Your task to perform on an android device: Search for the best selling phone on AliExpress Image 0: 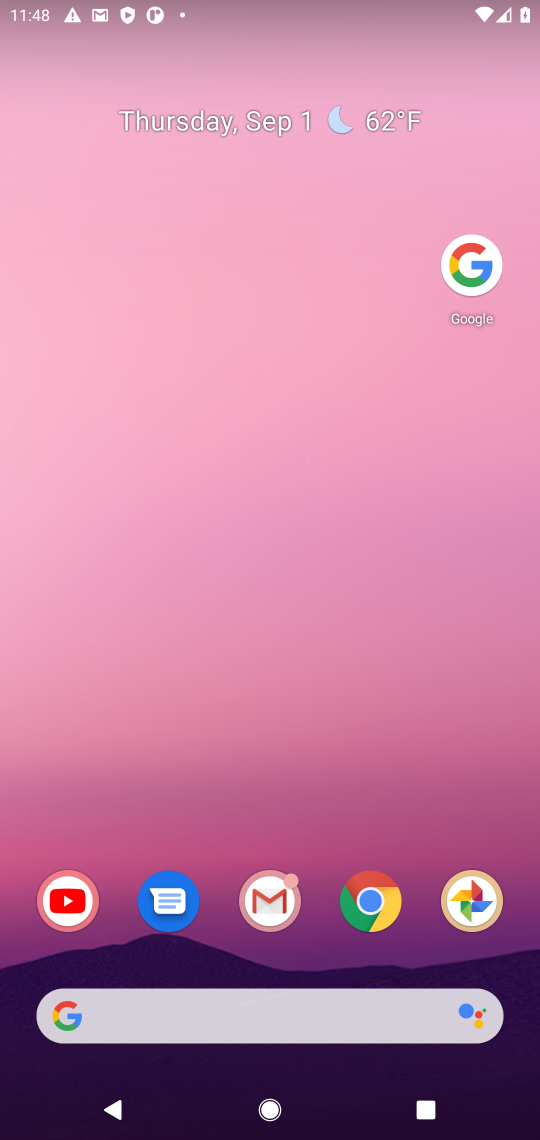
Step 0: drag from (245, 753) to (328, 216)
Your task to perform on an android device: Search for the best selling phone on AliExpress Image 1: 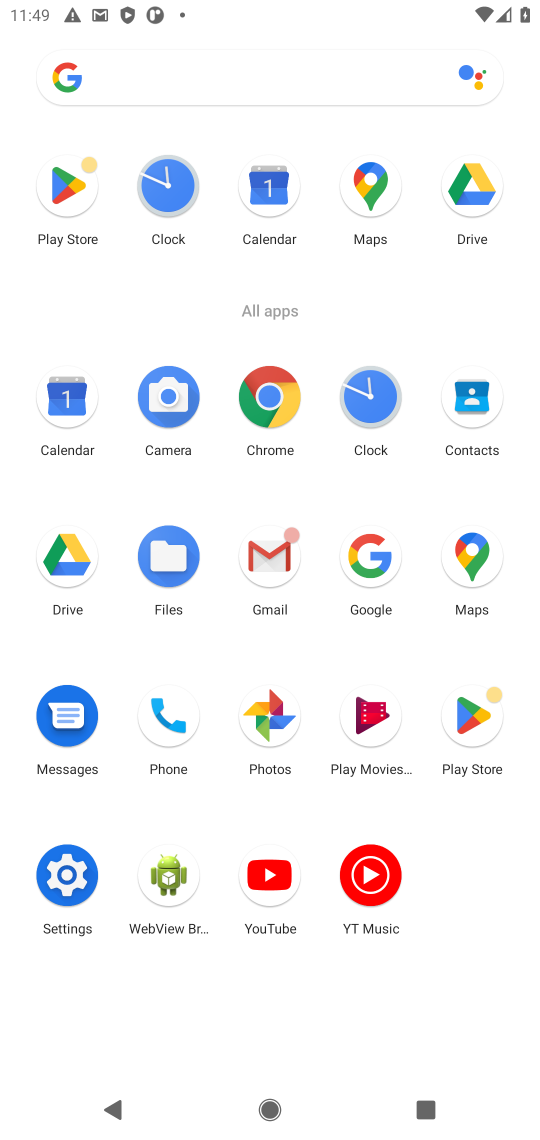
Step 1: click (379, 544)
Your task to perform on an android device: Search for the best selling phone on AliExpress Image 2: 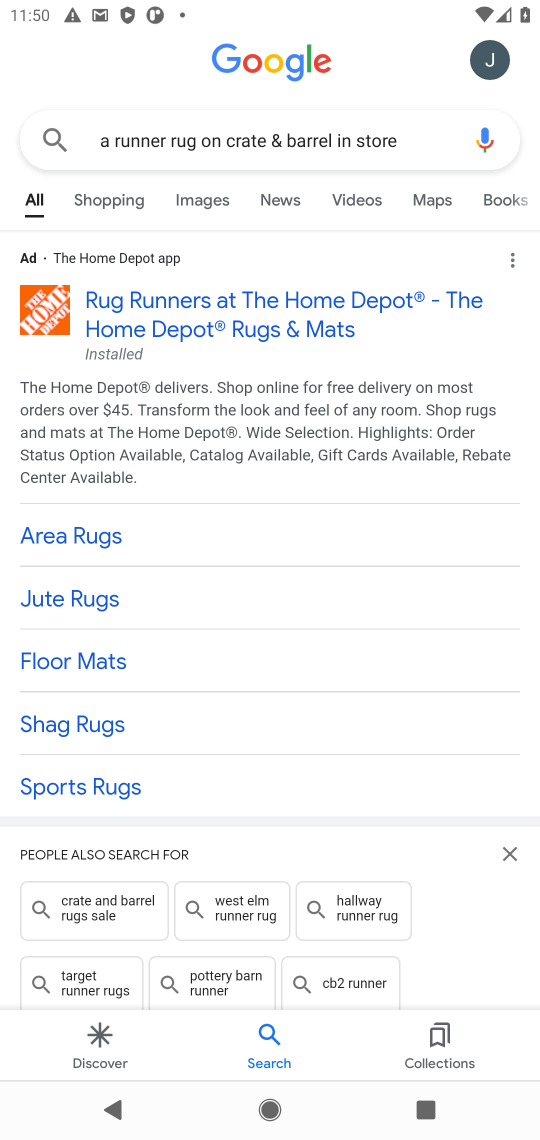
Step 2: click (193, 304)
Your task to perform on an android device: Search for the best selling phone on AliExpress Image 3: 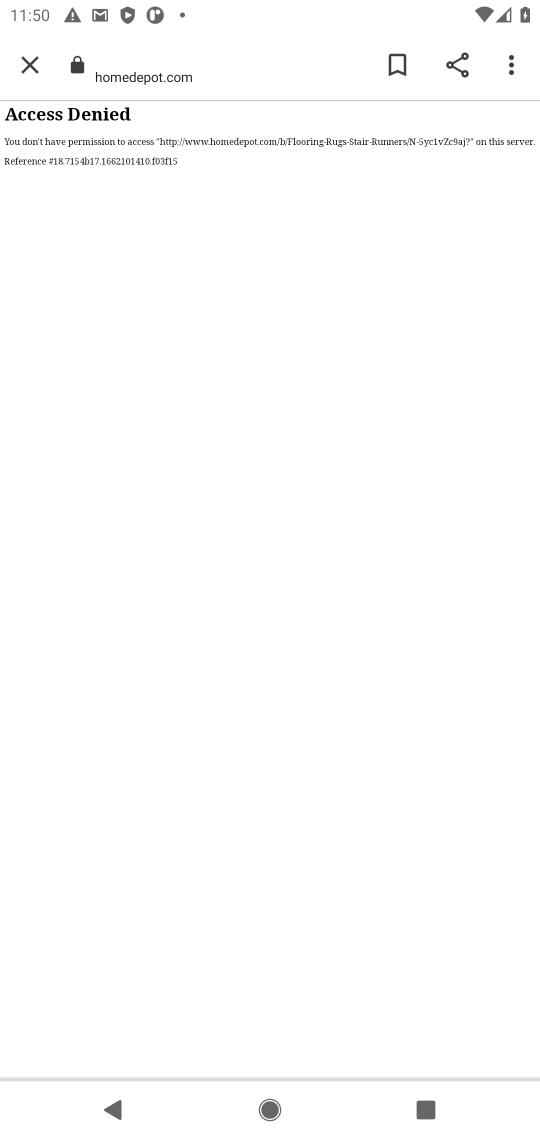
Step 3: click (24, 67)
Your task to perform on an android device: Search for the best selling phone on AliExpress Image 4: 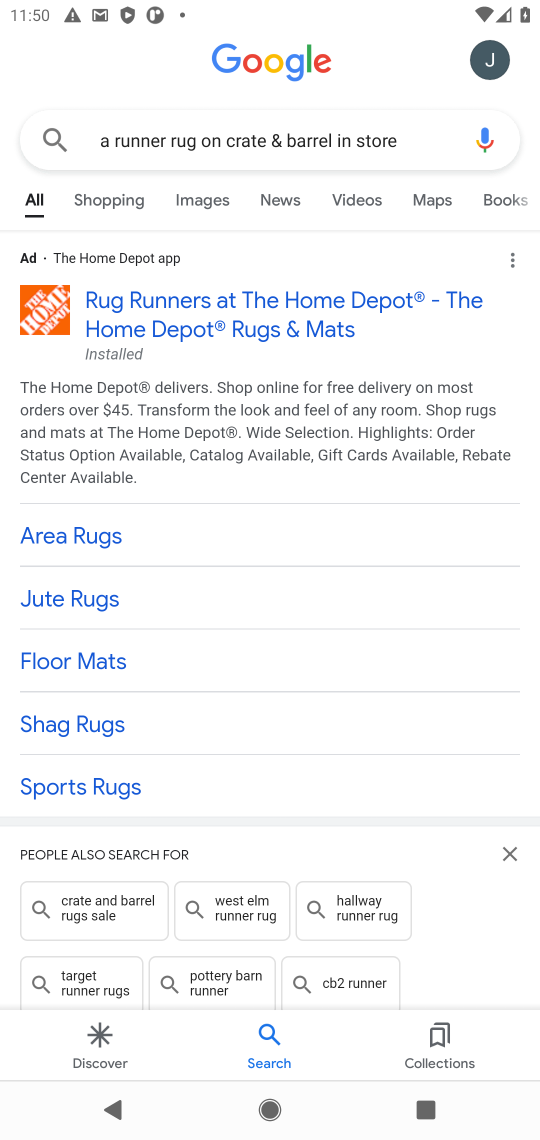
Step 4: click (364, 137)
Your task to perform on an android device: Search for the best selling phone on AliExpress Image 5: 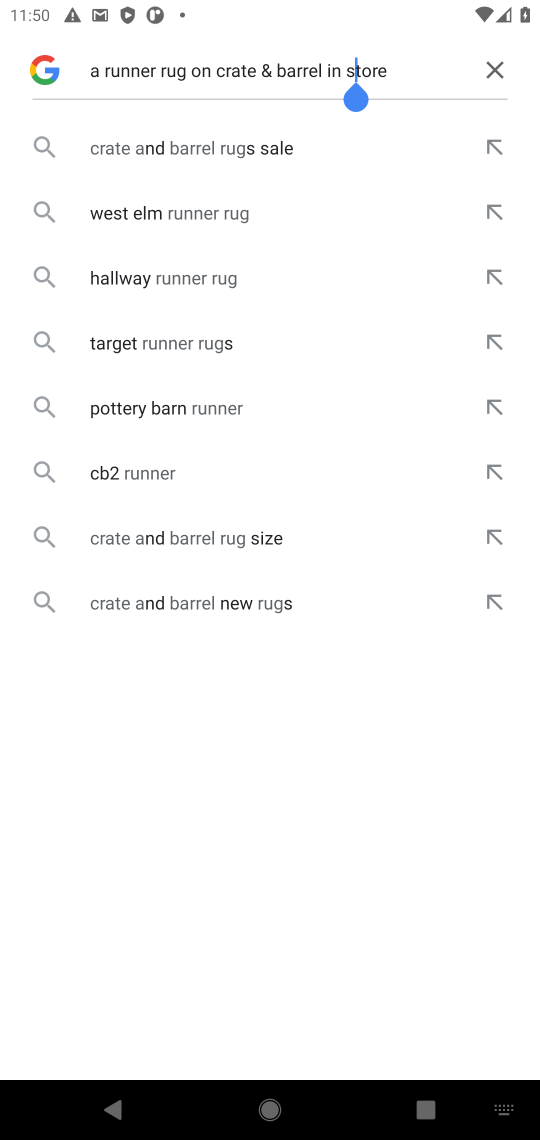
Step 5: click (496, 62)
Your task to perform on an android device: Search for the best selling phone on AliExpress Image 6: 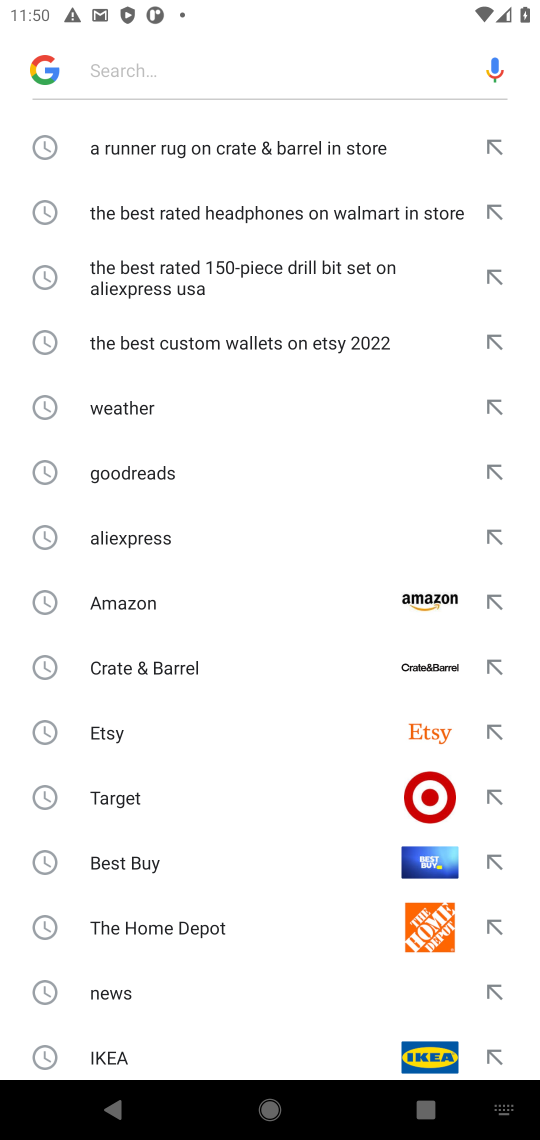
Step 6: click (225, 85)
Your task to perform on an android device: Search for the best selling phone on AliExpress Image 7: 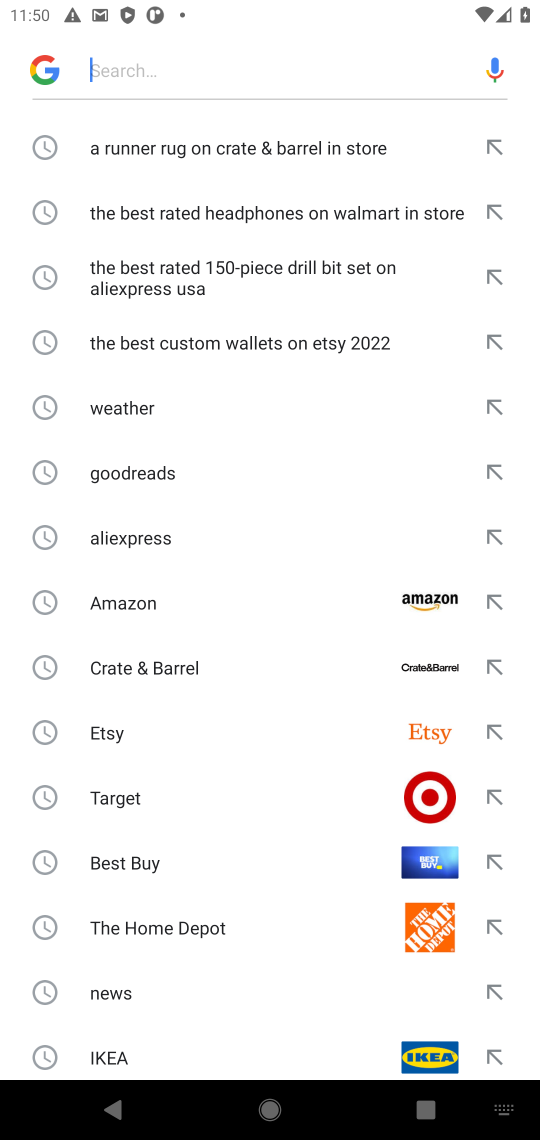
Step 7: click (225, 82)
Your task to perform on an android device: Search for the best selling phone on AliExpress Image 8: 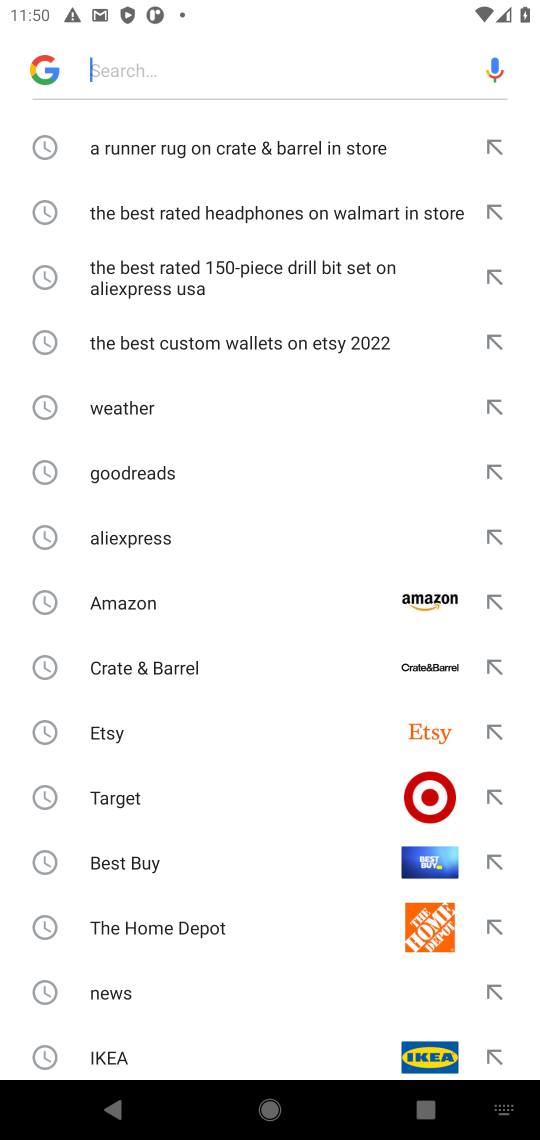
Step 8: type " the best selling phone on AliExpress "
Your task to perform on an android device: Search for the best selling phone on AliExpress Image 9: 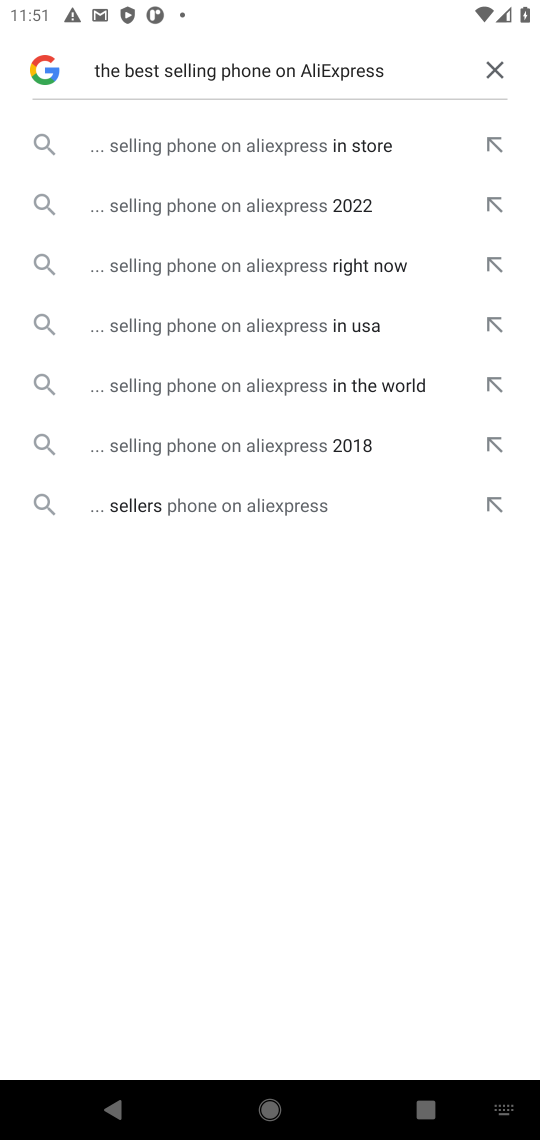
Step 9: click (251, 146)
Your task to perform on an android device: Search for the best selling phone on AliExpress Image 10: 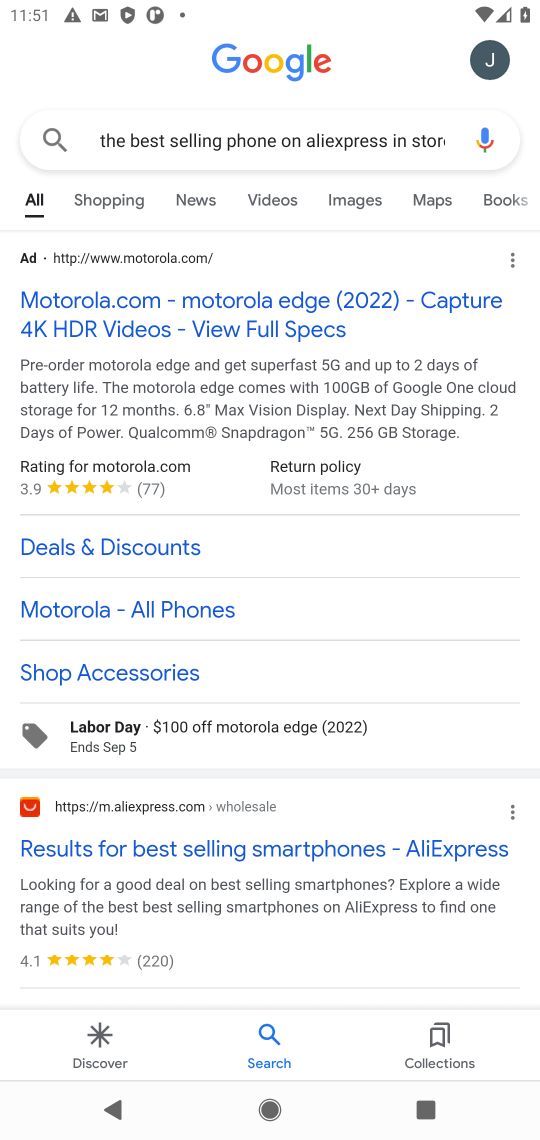
Step 10: task complete